Your task to perform on an android device: Open network settings Image 0: 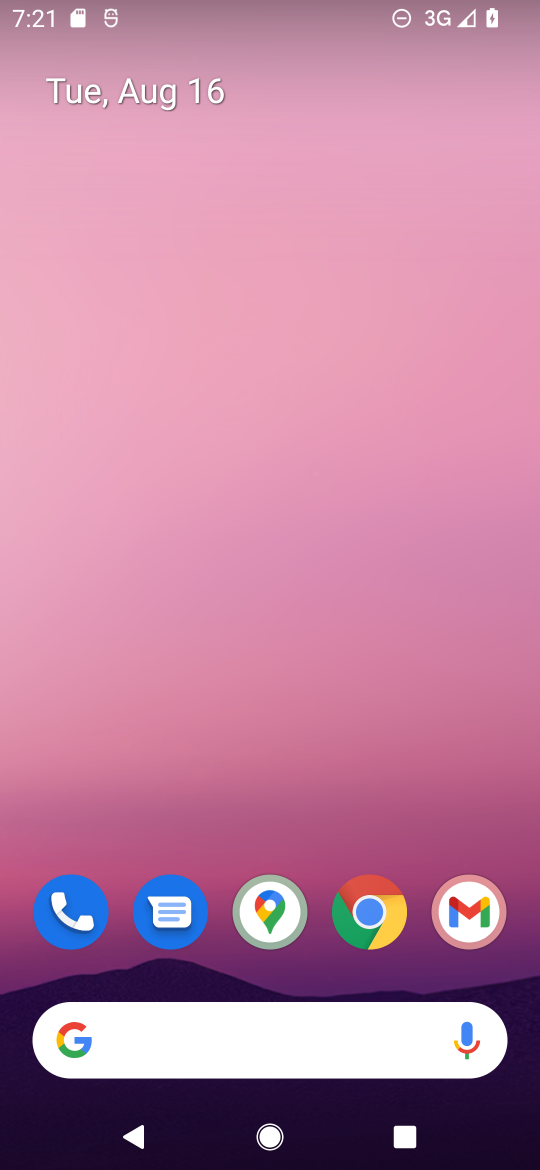
Step 0: drag from (425, 712) to (414, 96)
Your task to perform on an android device: Open network settings Image 1: 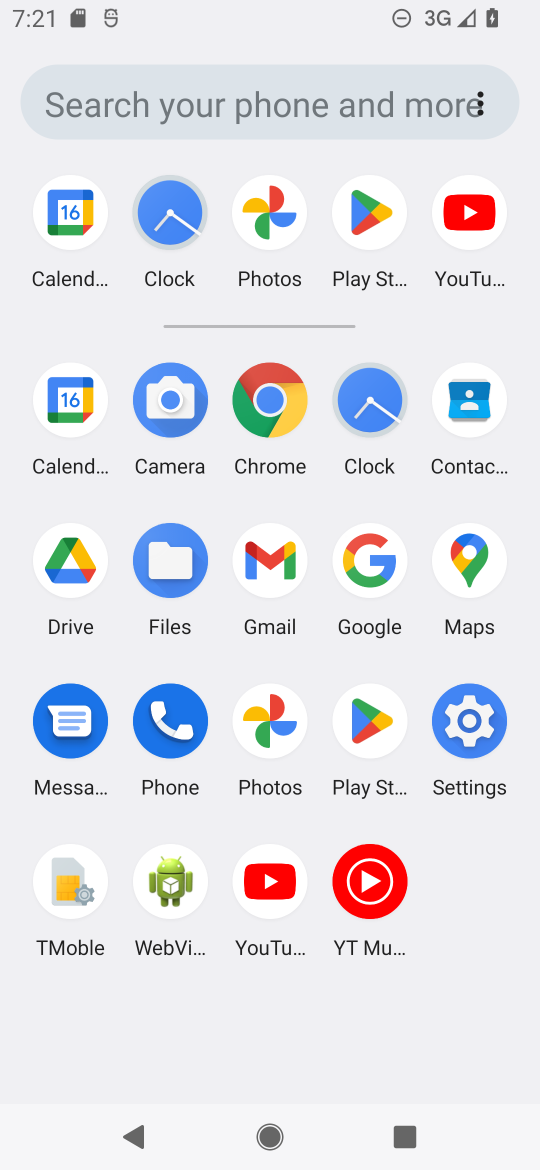
Step 1: click (467, 726)
Your task to perform on an android device: Open network settings Image 2: 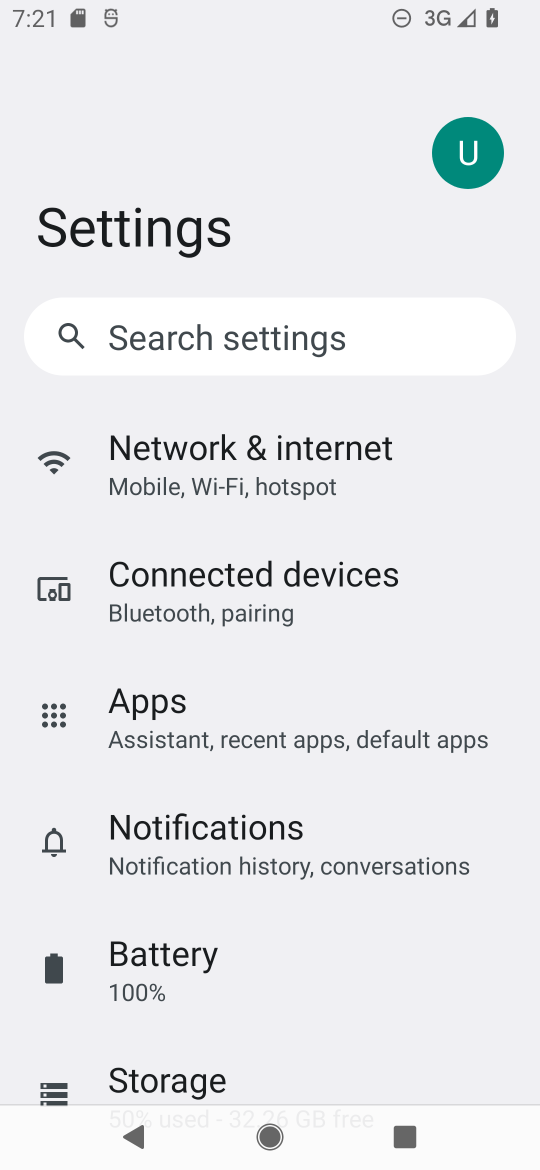
Step 2: click (166, 440)
Your task to perform on an android device: Open network settings Image 3: 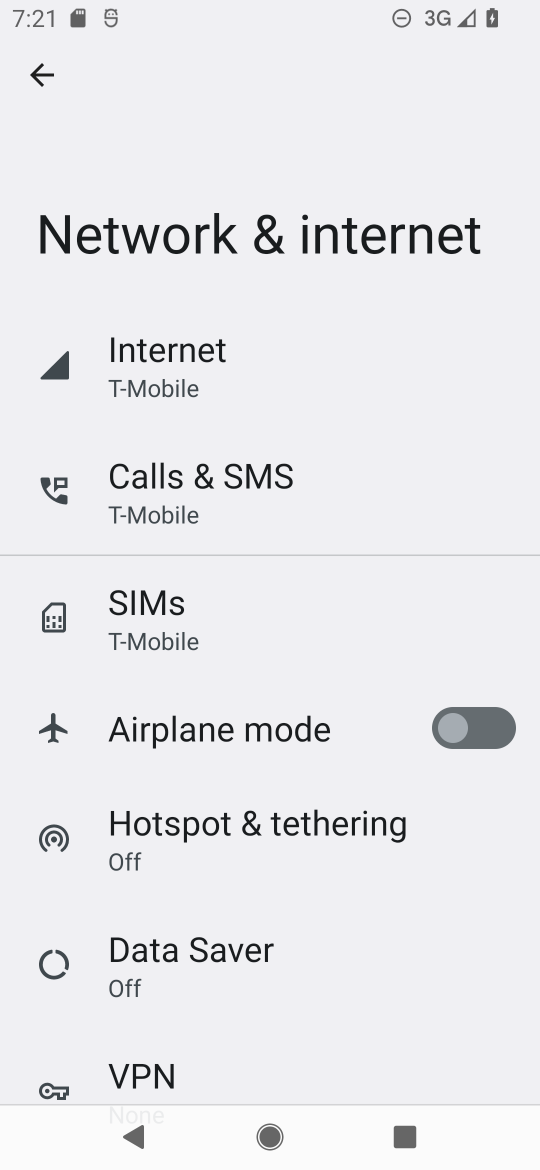
Step 3: drag from (382, 967) to (384, 746)
Your task to perform on an android device: Open network settings Image 4: 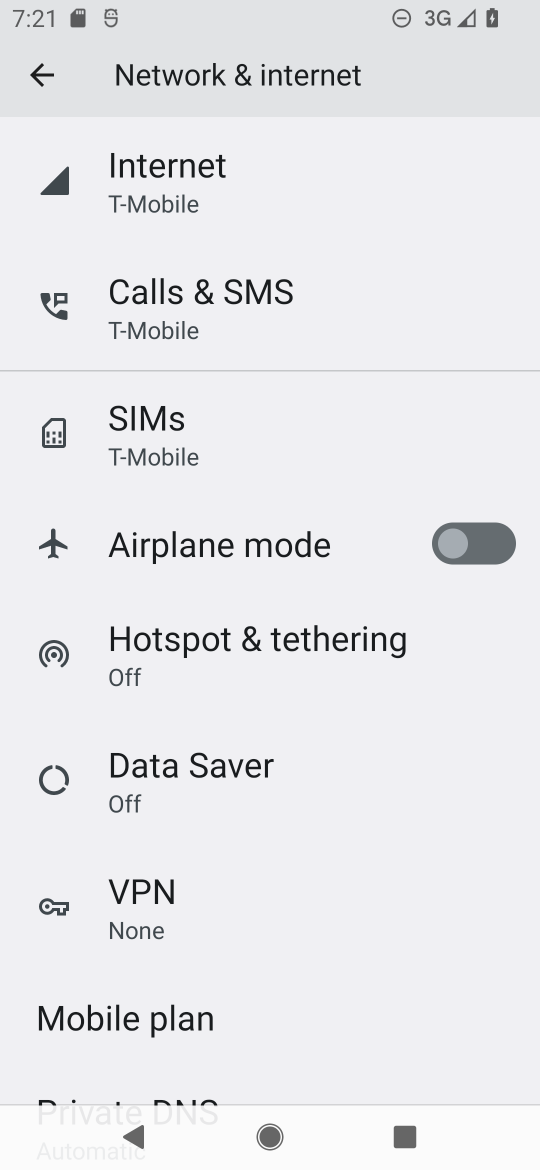
Step 4: click (172, 179)
Your task to perform on an android device: Open network settings Image 5: 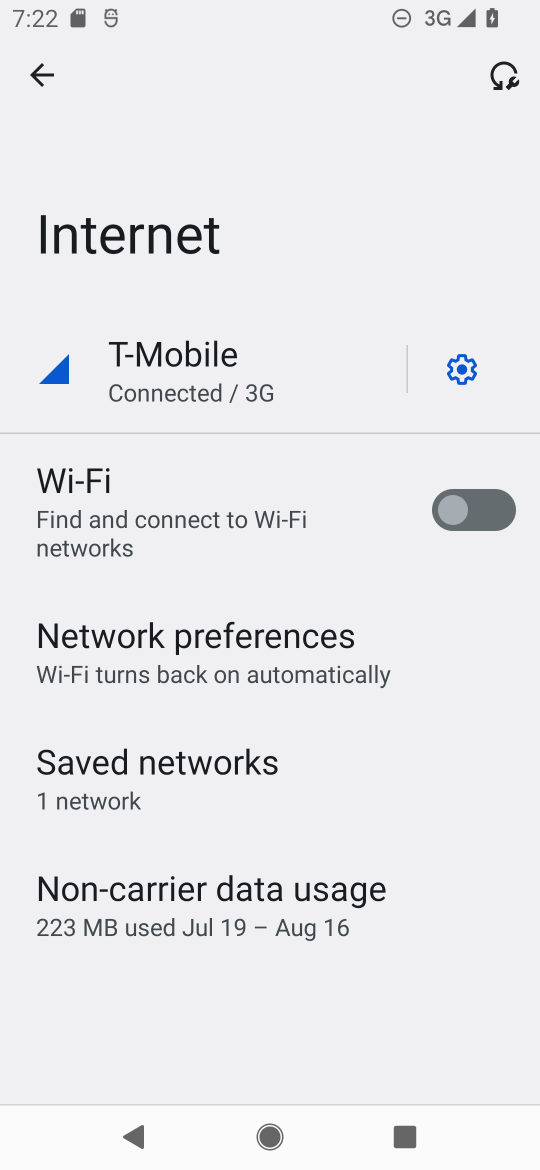
Step 5: click (465, 371)
Your task to perform on an android device: Open network settings Image 6: 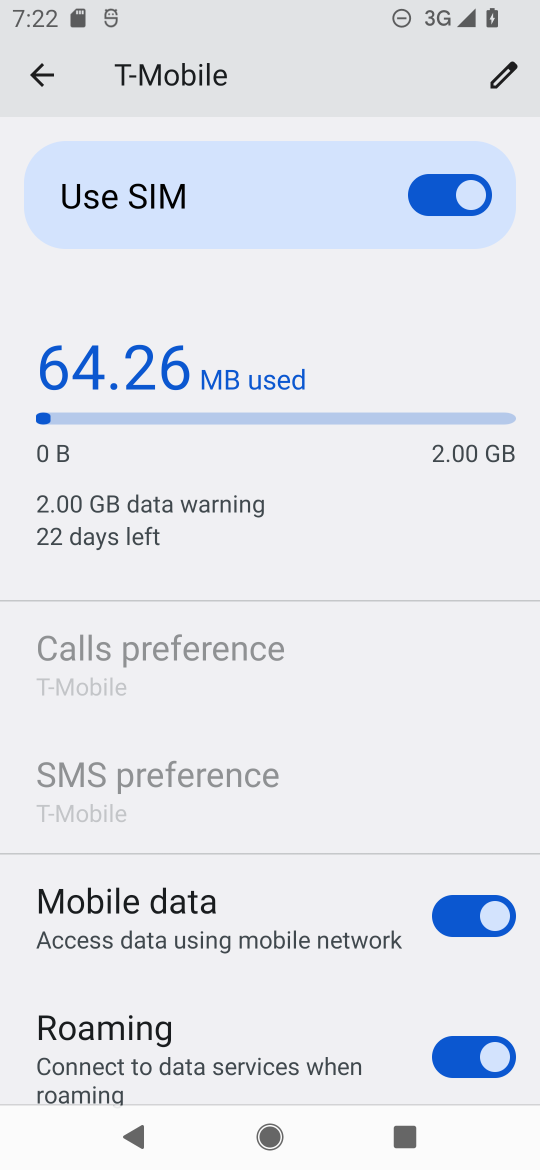
Step 6: task complete